Your task to perform on an android device: Go to notification settings Image 0: 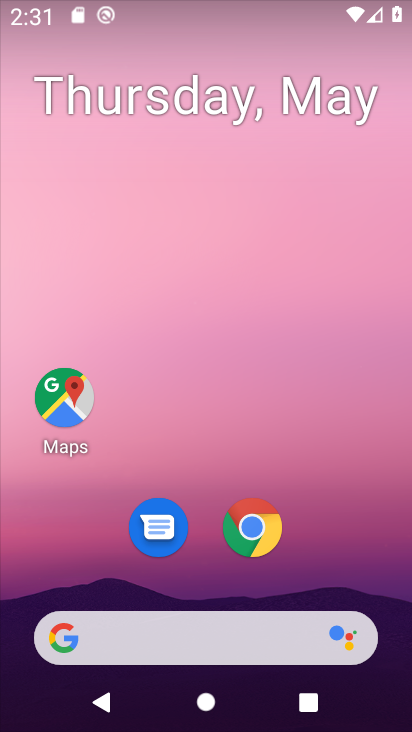
Step 0: drag from (381, 580) to (258, 232)
Your task to perform on an android device: Go to notification settings Image 1: 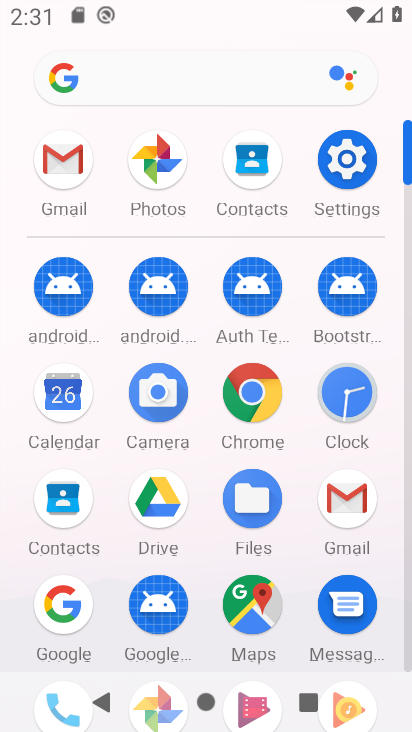
Step 1: click (338, 149)
Your task to perform on an android device: Go to notification settings Image 2: 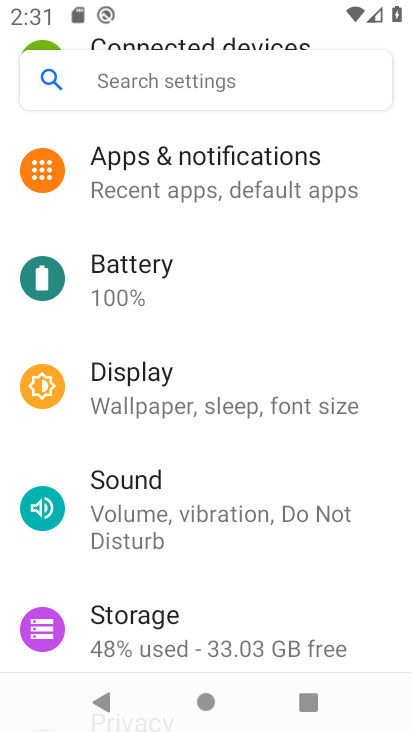
Step 2: drag from (287, 255) to (271, 647)
Your task to perform on an android device: Go to notification settings Image 3: 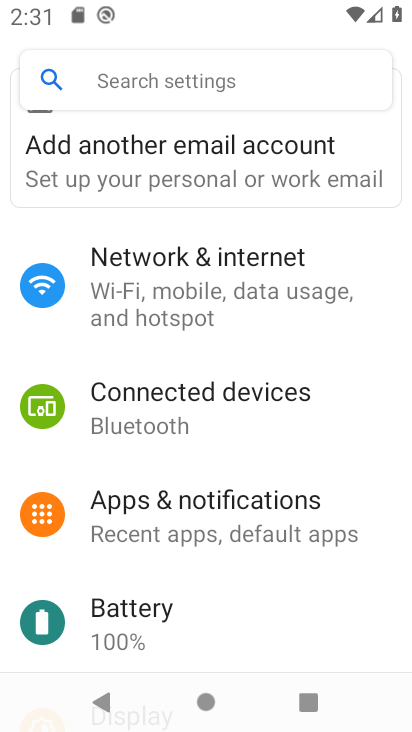
Step 3: click (87, 494)
Your task to perform on an android device: Go to notification settings Image 4: 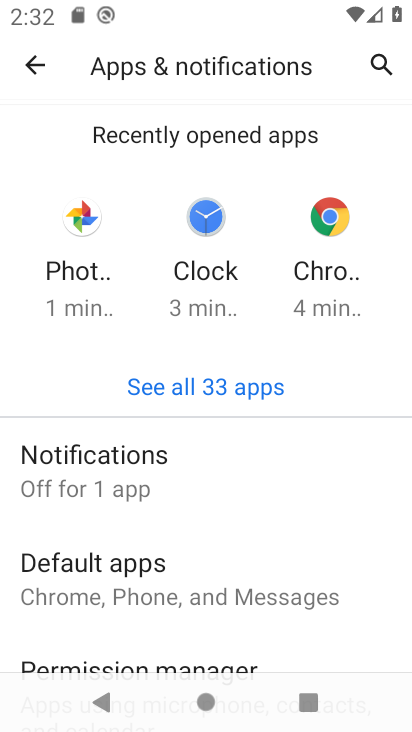
Step 4: click (69, 449)
Your task to perform on an android device: Go to notification settings Image 5: 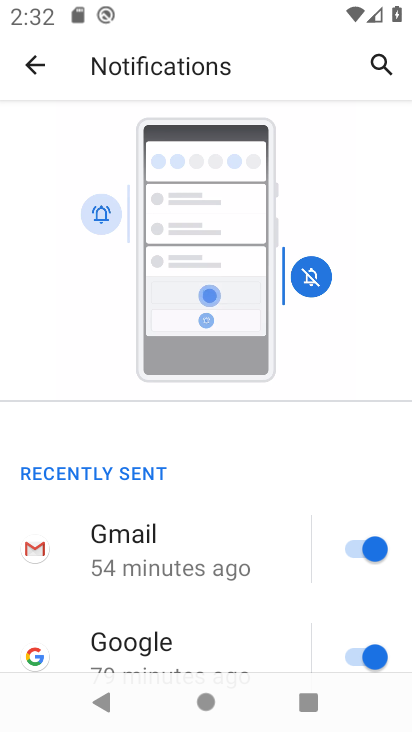
Step 5: task complete